Your task to perform on an android device: toggle airplane mode Image 0: 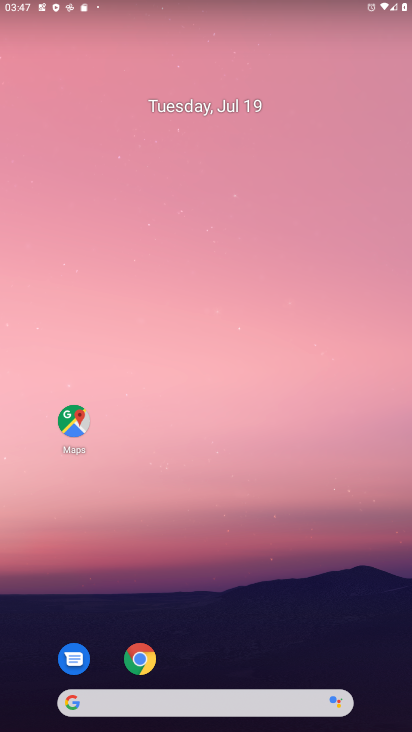
Step 0: press home button
Your task to perform on an android device: toggle airplane mode Image 1: 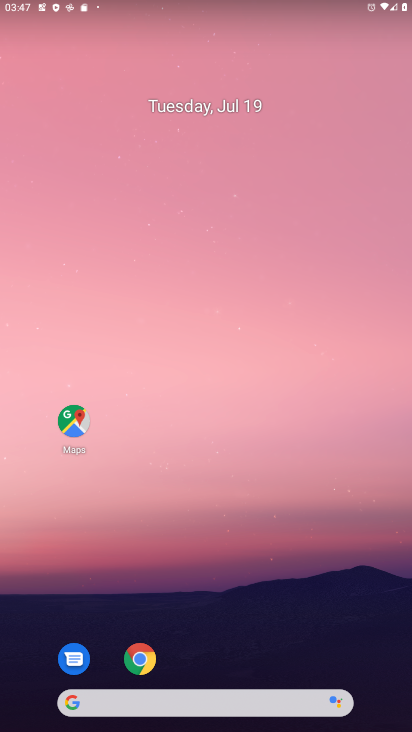
Step 1: press home button
Your task to perform on an android device: toggle airplane mode Image 2: 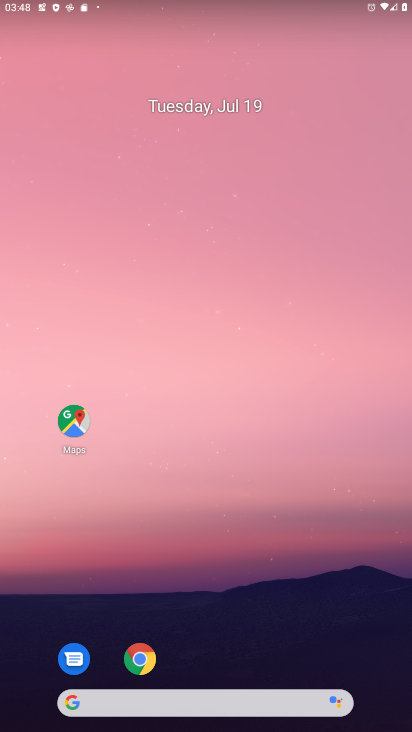
Step 2: drag from (374, 5) to (209, 727)
Your task to perform on an android device: toggle airplane mode Image 3: 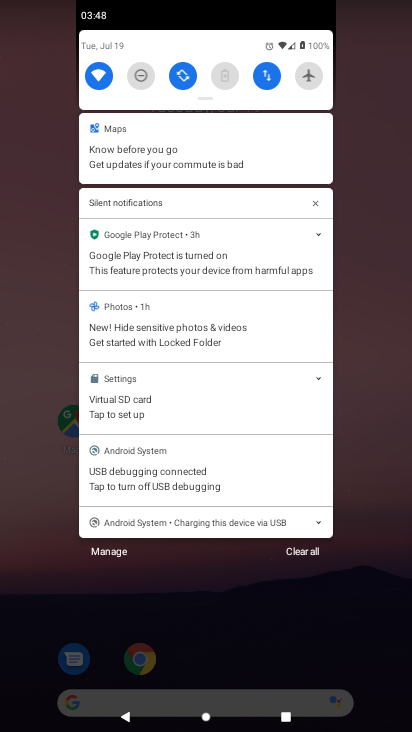
Step 3: click (308, 75)
Your task to perform on an android device: toggle airplane mode Image 4: 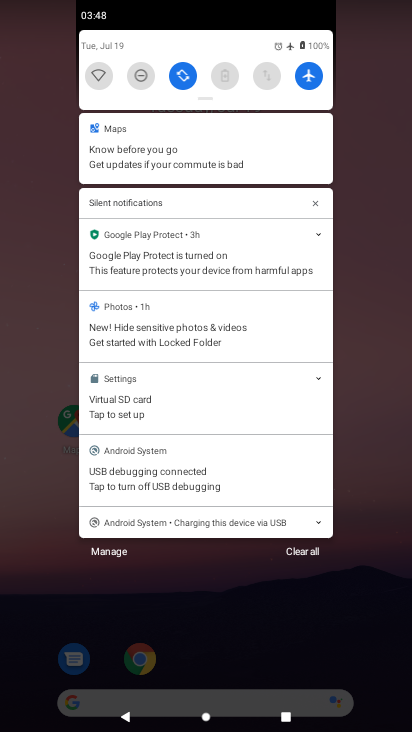
Step 4: task complete